Your task to perform on an android device: Go to CNN.com Image 0: 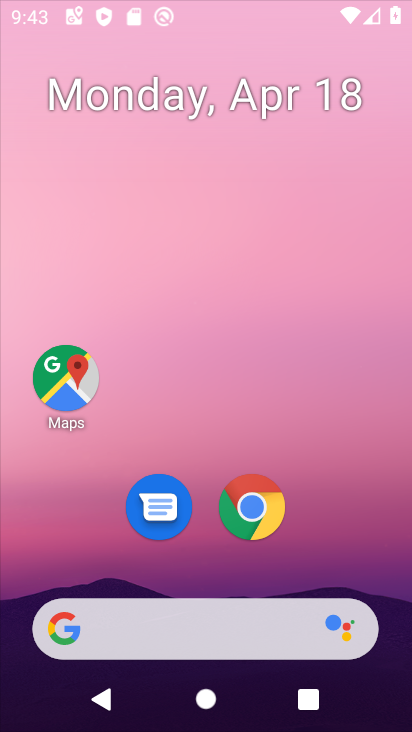
Step 0: click (251, 518)
Your task to perform on an android device: Go to CNN.com Image 1: 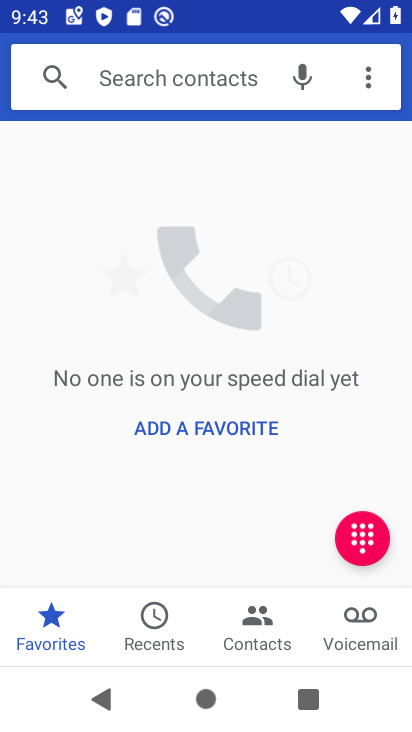
Step 1: press back button
Your task to perform on an android device: Go to CNN.com Image 2: 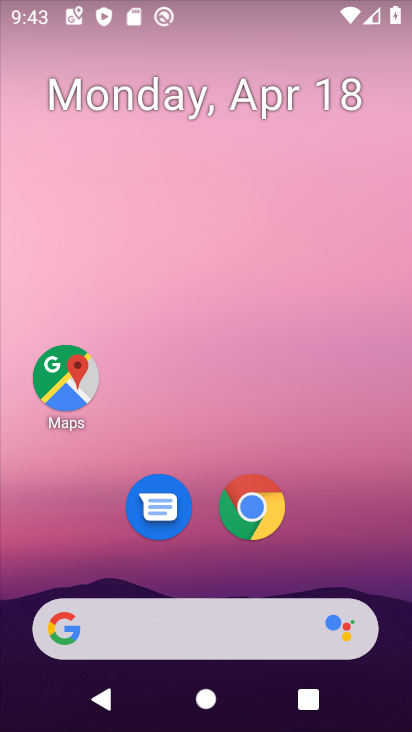
Step 2: click (232, 507)
Your task to perform on an android device: Go to CNN.com Image 3: 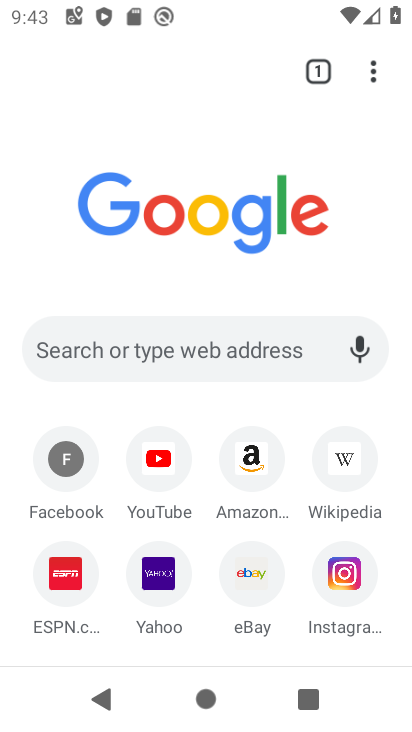
Step 3: click (187, 363)
Your task to perform on an android device: Go to CNN.com Image 4: 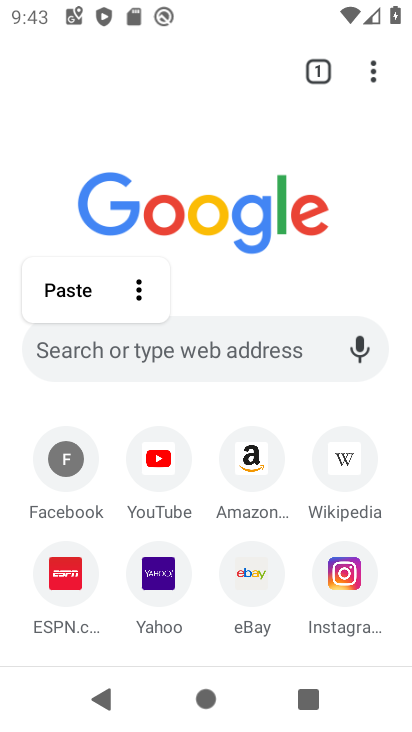
Step 4: type "cnn.com"
Your task to perform on an android device: Go to CNN.com Image 5: 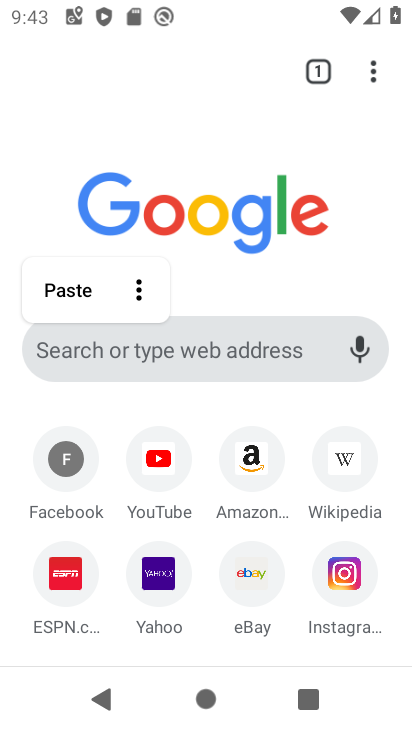
Step 5: click (165, 341)
Your task to perform on an android device: Go to CNN.com Image 6: 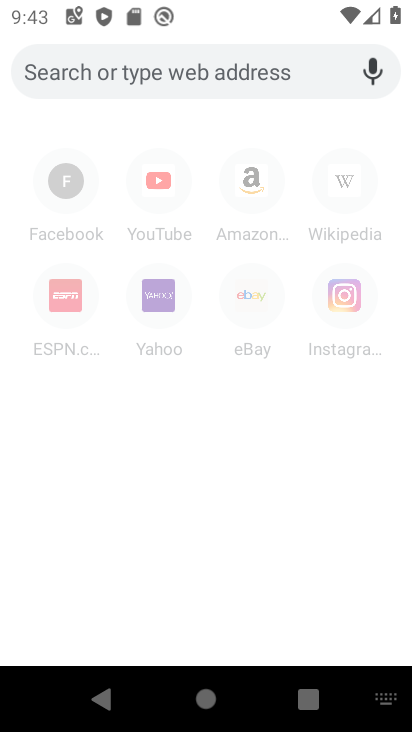
Step 6: type "CNN.com"
Your task to perform on an android device: Go to CNN.com Image 7: 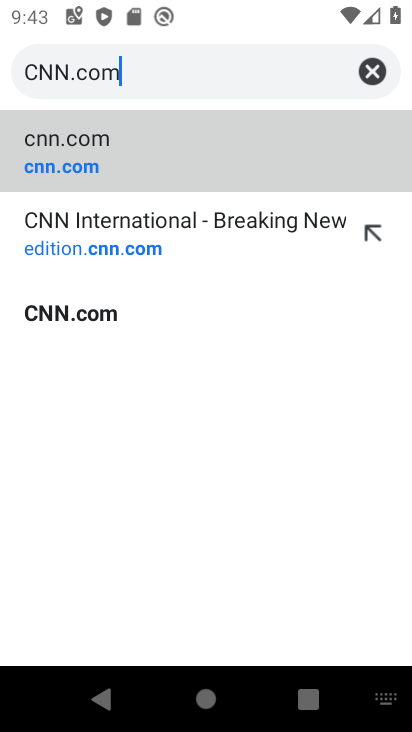
Step 7: click (135, 166)
Your task to perform on an android device: Go to CNN.com Image 8: 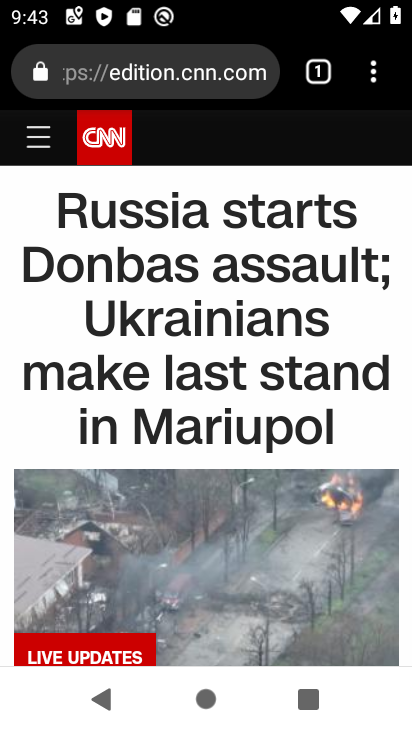
Step 8: task complete